Your task to perform on an android device: turn off sleep mode Image 0: 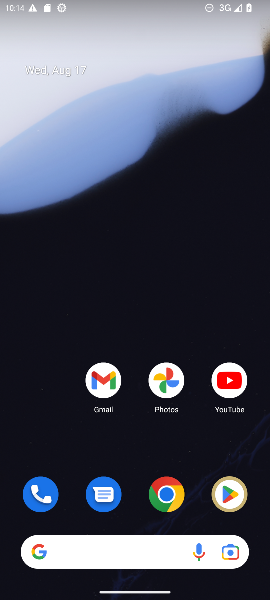
Step 0: drag from (193, 459) to (210, 55)
Your task to perform on an android device: turn off sleep mode Image 1: 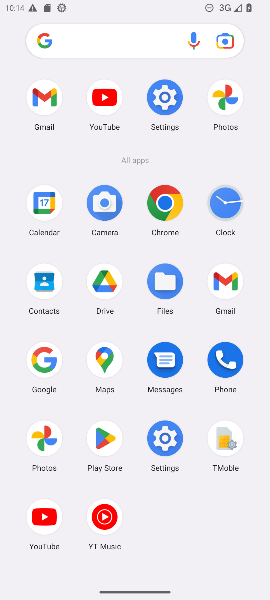
Step 1: click (158, 437)
Your task to perform on an android device: turn off sleep mode Image 2: 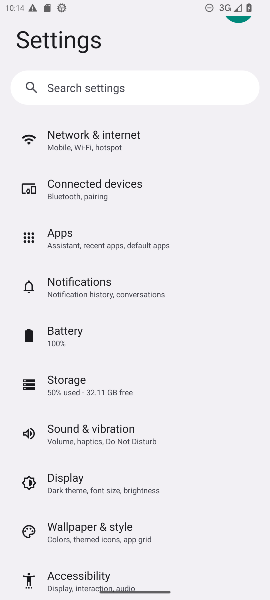
Step 2: click (72, 478)
Your task to perform on an android device: turn off sleep mode Image 3: 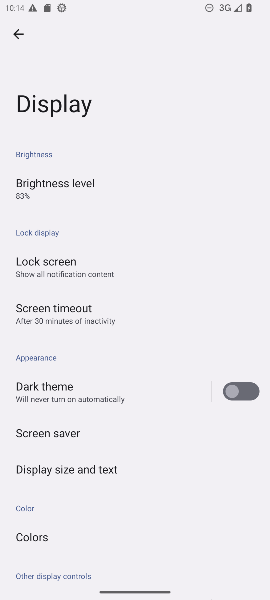
Step 3: drag from (117, 446) to (137, 213)
Your task to perform on an android device: turn off sleep mode Image 4: 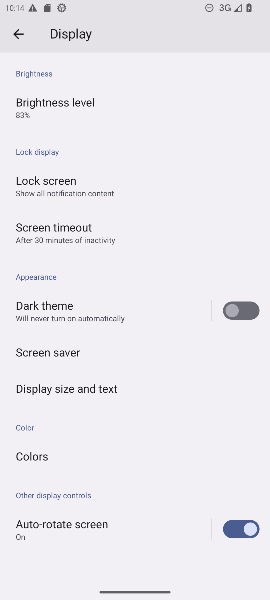
Step 4: click (66, 347)
Your task to perform on an android device: turn off sleep mode Image 5: 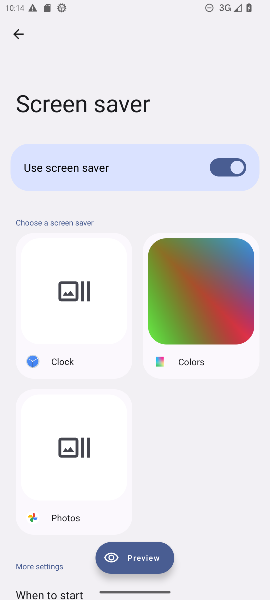
Step 5: task complete